Your task to perform on an android device: turn on bluetooth scan Image 0: 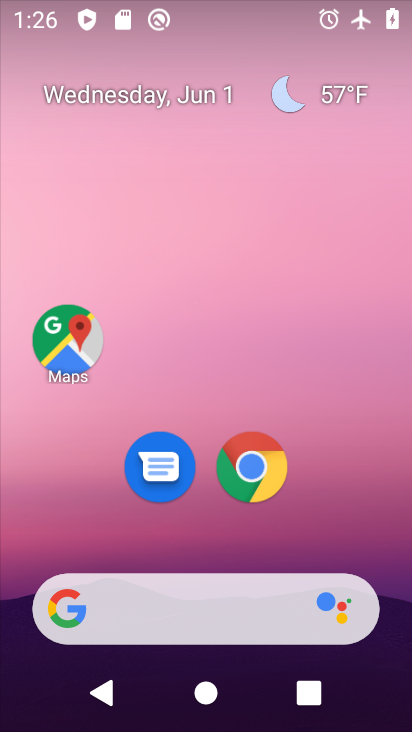
Step 0: drag from (378, 523) to (377, 105)
Your task to perform on an android device: turn on bluetooth scan Image 1: 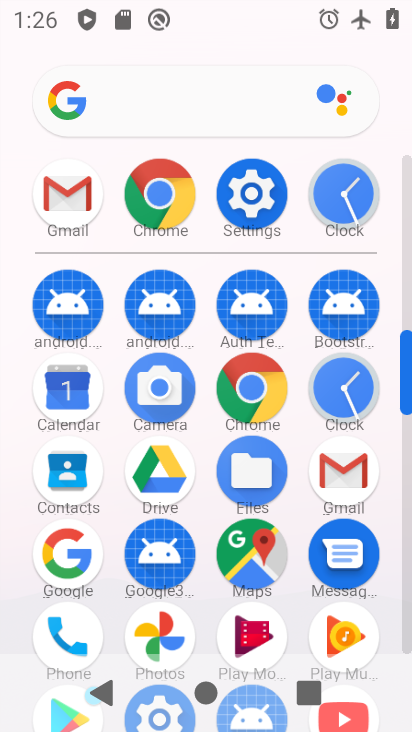
Step 1: click (244, 204)
Your task to perform on an android device: turn on bluetooth scan Image 2: 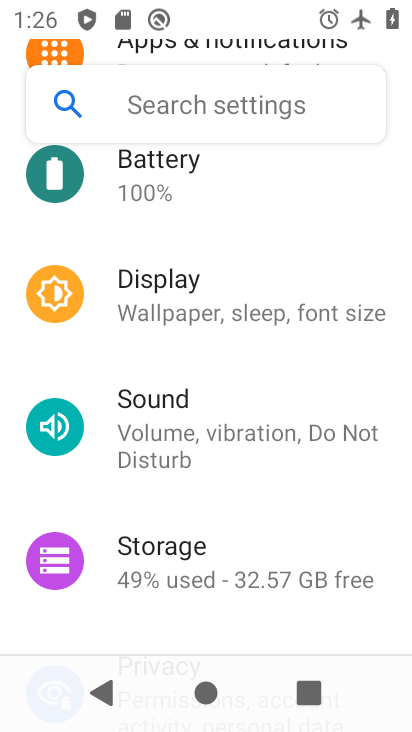
Step 2: drag from (352, 504) to (366, 309)
Your task to perform on an android device: turn on bluetooth scan Image 3: 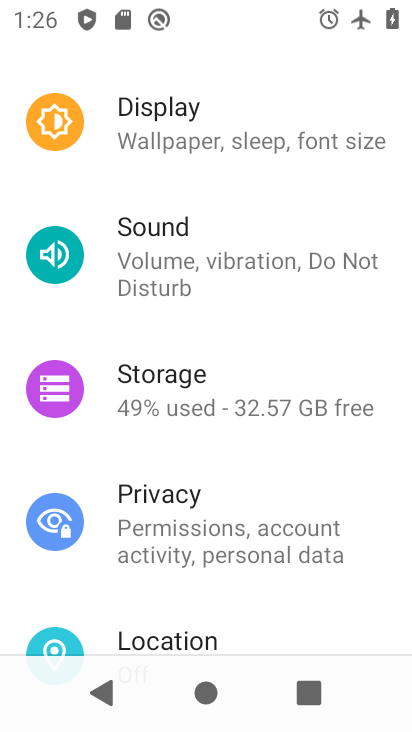
Step 3: drag from (364, 500) to (370, 329)
Your task to perform on an android device: turn on bluetooth scan Image 4: 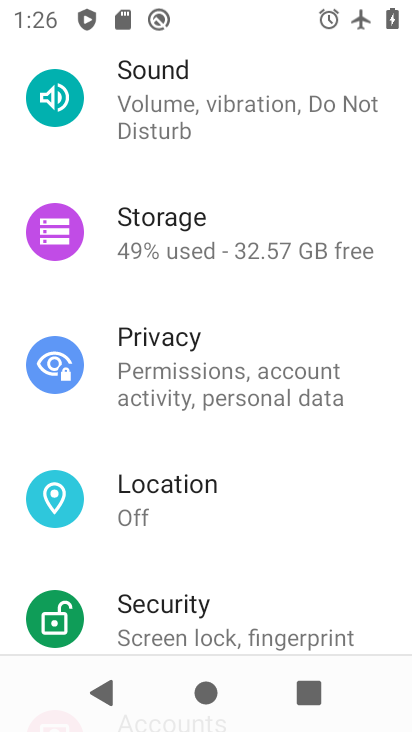
Step 4: drag from (344, 482) to (347, 309)
Your task to perform on an android device: turn on bluetooth scan Image 5: 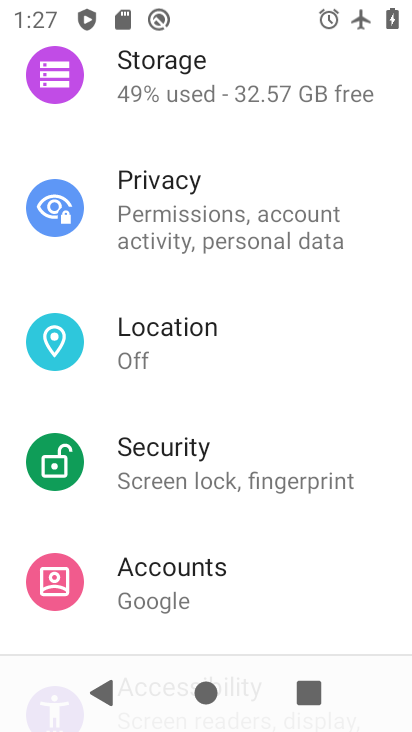
Step 5: click (224, 380)
Your task to perform on an android device: turn on bluetooth scan Image 6: 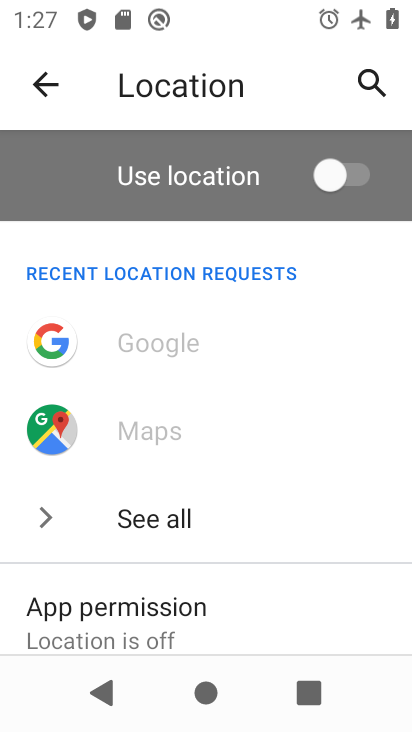
Step 6: drag from (252, 533) to (277, 347)
Your task to perform on an android device: turn on bluetooth scan Image 7: 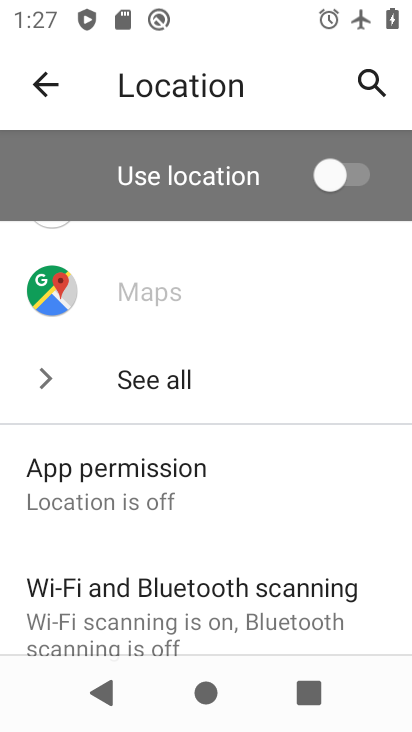
Step 7: drag from (283, 499) to (299, 288)
Your task to perform on an android device: turn on bluetooth scan Image 8: 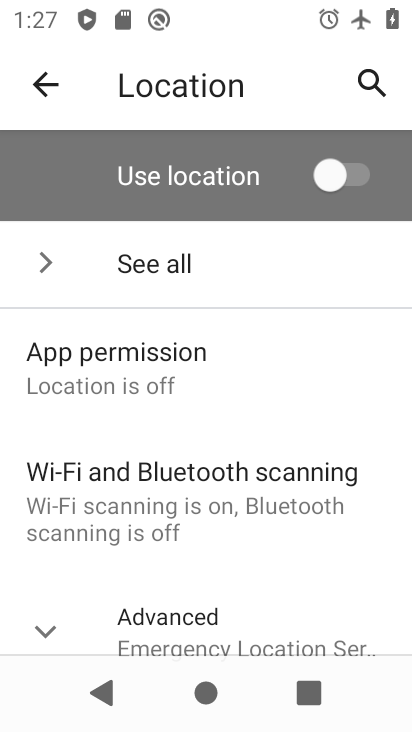
Step 8: click (259, 503)
Your task to perform on an android device: turn on bluetooth scan Image 9: 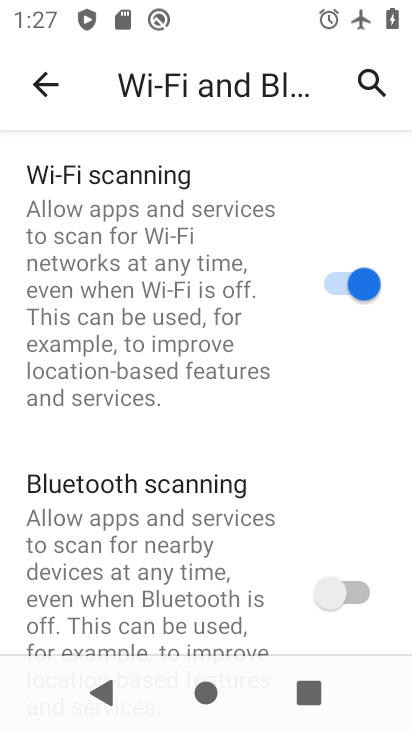
Step 9: drag from (274, 580) to (295, 421)
Your task to perform on an android device: turn on bluetooth scan Image 10: 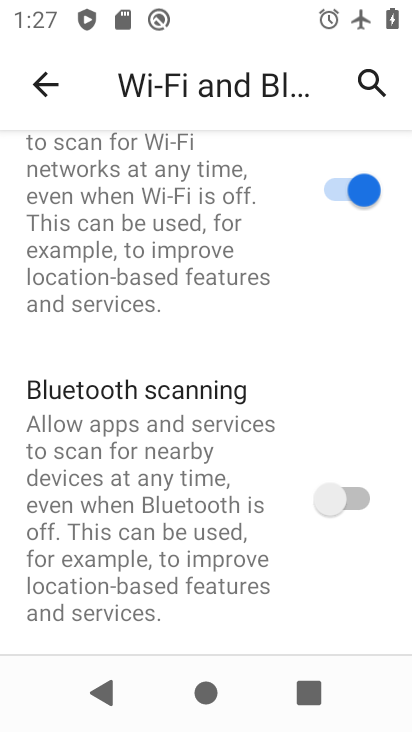
Step 10: click (339, 504)
Your task to perform on an android device: turn on bluetooth scan Image 11: 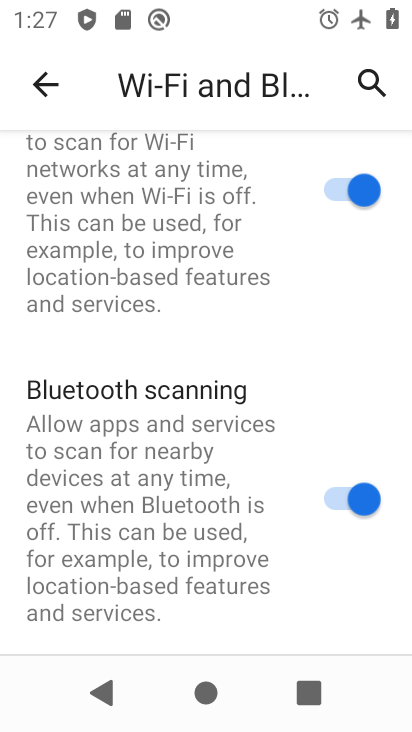
Step 11: task complete